Your task to perform on an android device: turn on the 24-hour format for clock Image 0: 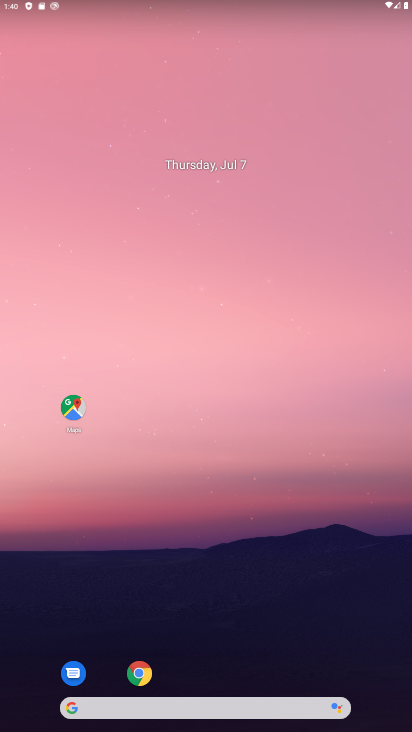
Step 0: drag from (204, 657) to (184, 142)
Your task to perform on an android device: turn on the 24-hour format for clock Image 1: 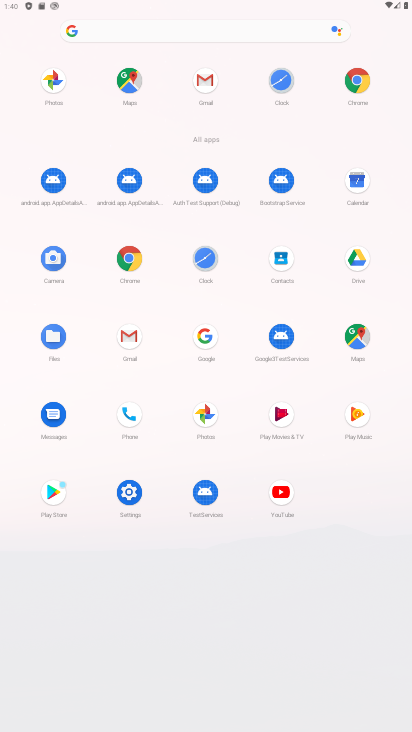
Step 1: click (284, 84)
Your task to perform on an android device: turn on the 24-hour format for clock Image 2: 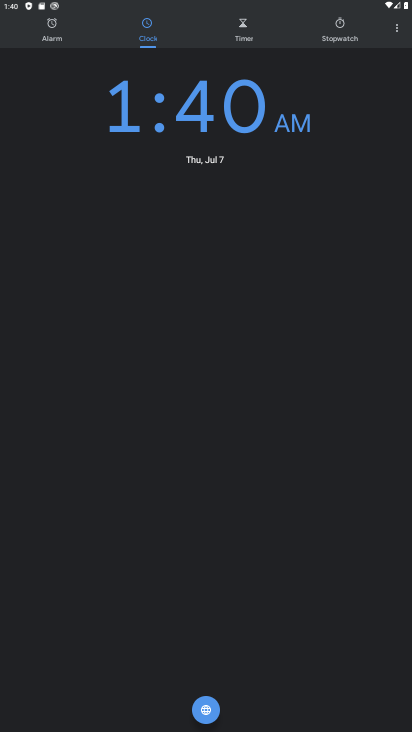
Step 2: click (393, 32)
Your task to perform on an android device: turn on the 24-hour format for clock Image 3: 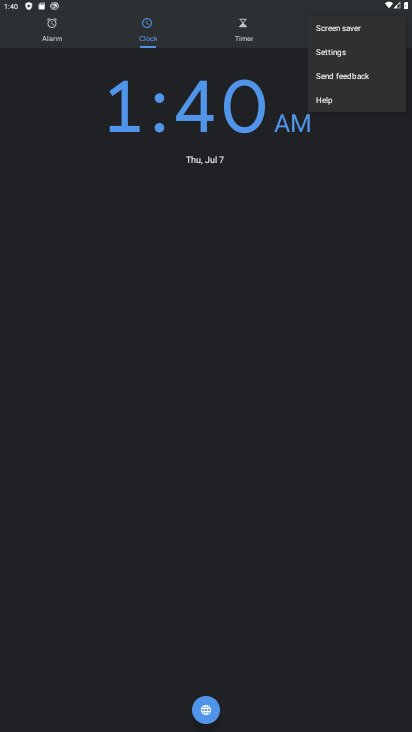
Step 3: click (339, 58)
Your task to perform on an android device: turn on the 24-hour format for clock Image 4: 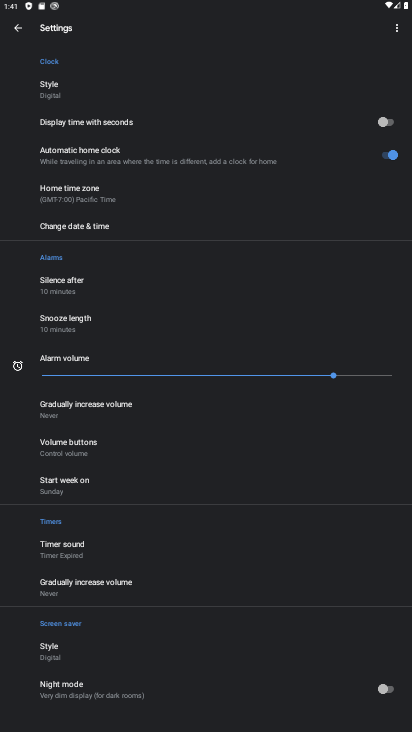
Step 4: click (116, 225)
Your task to perform on an android device: turn on the 24-hour format for clock Image 5: 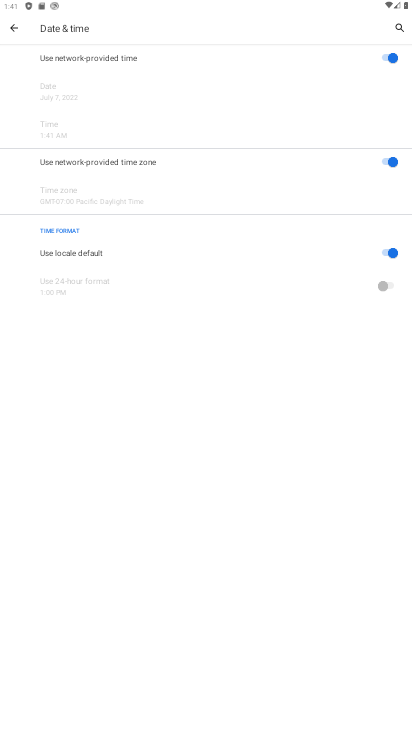
Step 5: click (381, 253)
Your task to perform on an android device: turn on the 24-hour format for clock Image 6: 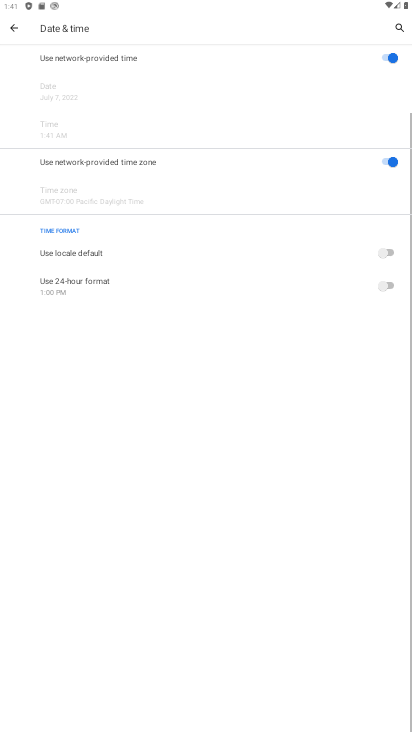
Step 6: click (387, 284)
Your task to perform on an android device: turn on the 24-hour format for clock Image 7: 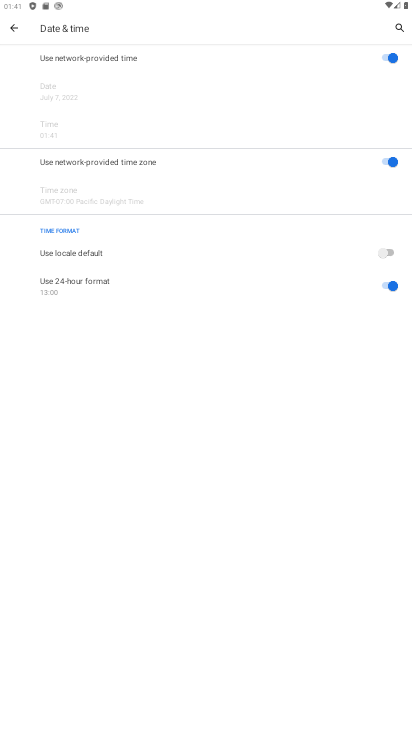
Step 7: task complete